Your task to perform on an android device: read, delete, or share a saved page in the chrome app Image 0: 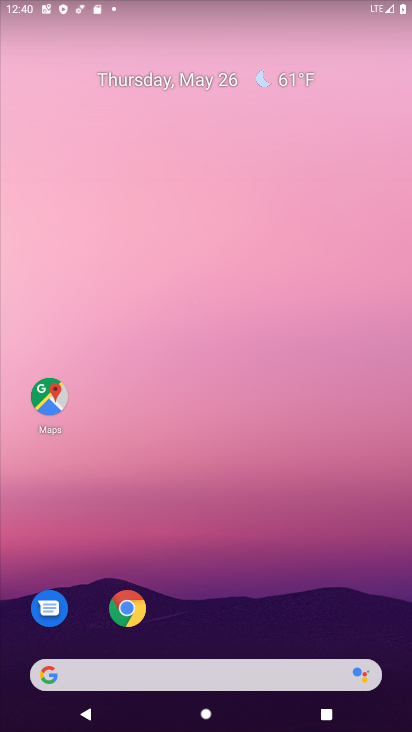
Step 0: click (125, 609)
Your task to perform on an android device: read, delete, or share a saved page in the chrome app Image 1: 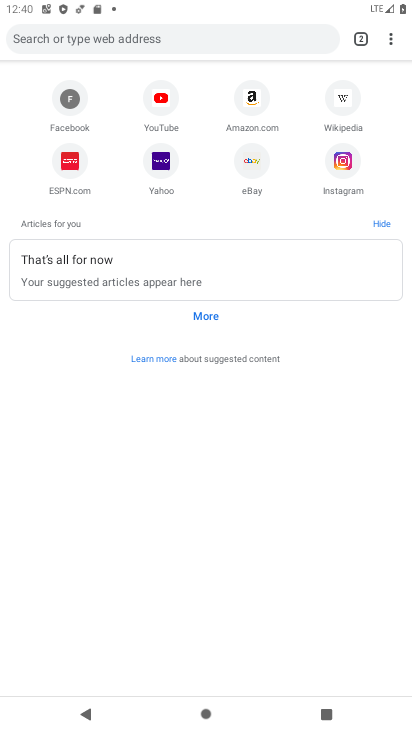
Step 1: click (393, 44)
Your task to perform on an android device: read, delete, or share a saved page in the chrome app Image 2: 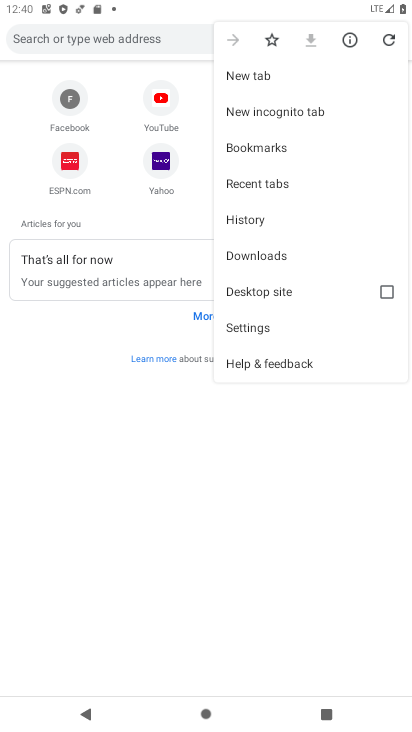
Step 2: click (270, 256)
Your task to perform on an android device: read, delete, or share a saved page in the chrome app Image 3: 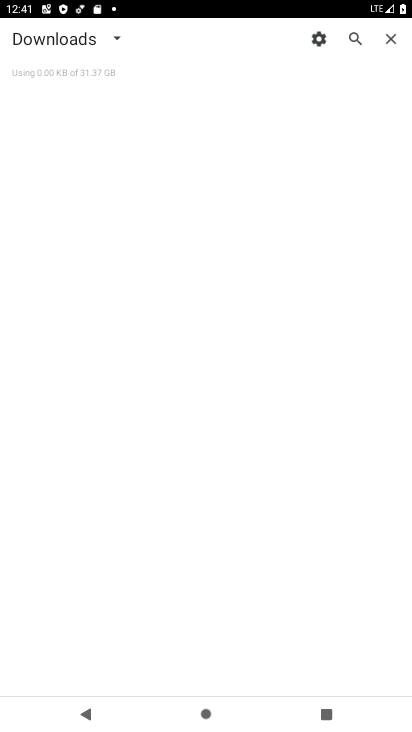
Step 3: click (117, 36)
Your task to perform on an android device: read, delete, or share a saved page in the chrome app Image 4: 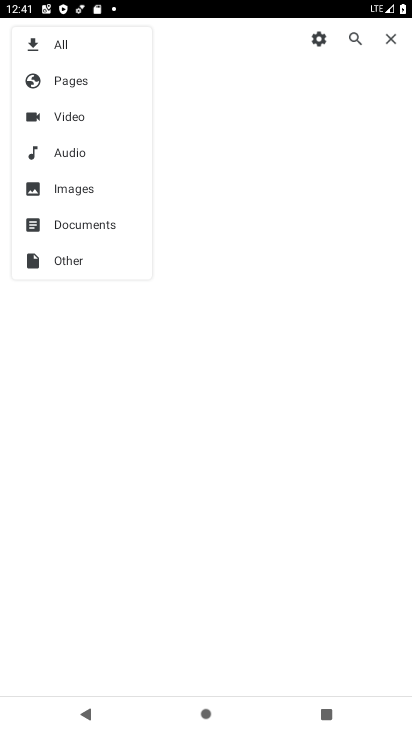
Step 4: click (60, 74)
Your task to perform on an android device: read, delete, or share a saved page in the chrome app Image 5: 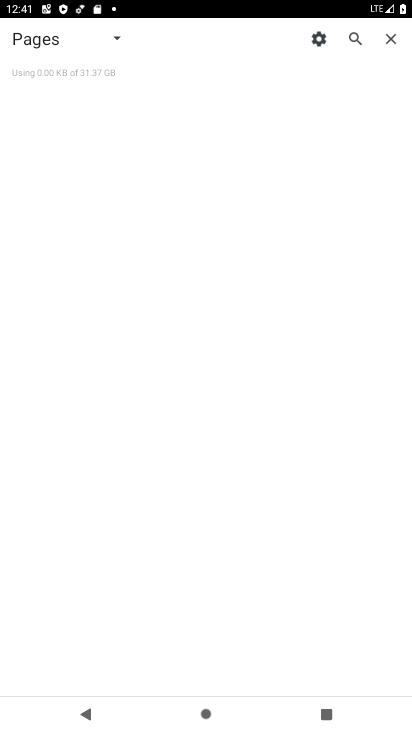
Step 5: task complete